Your task to perform on an android device: What's on my calendar tomorrow? Image 0: 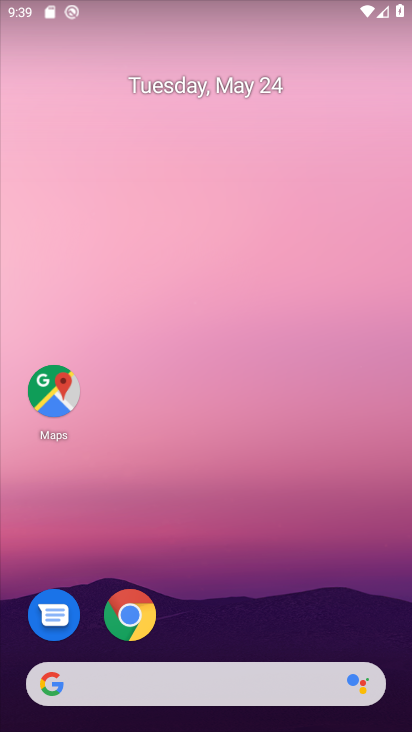
Step 0: drag from (372, 638) to (361, 253)
Your task to perform on an android device: What's on my calendar tomorrow? Image 1: 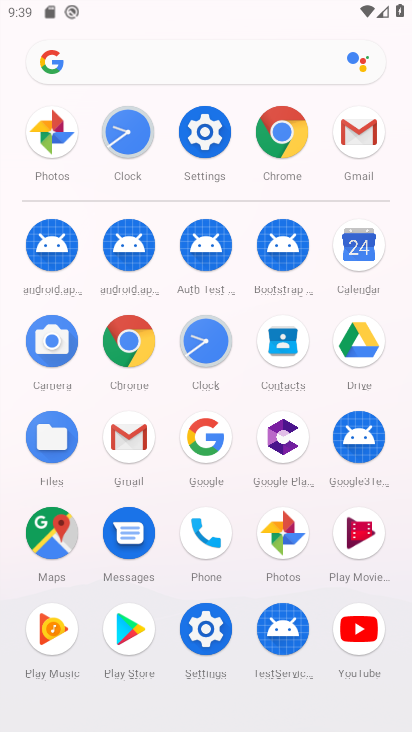
Step 1: click (371, 260)
Your task to perform on an android device: What's on my calendar tomorrow? Image 2: 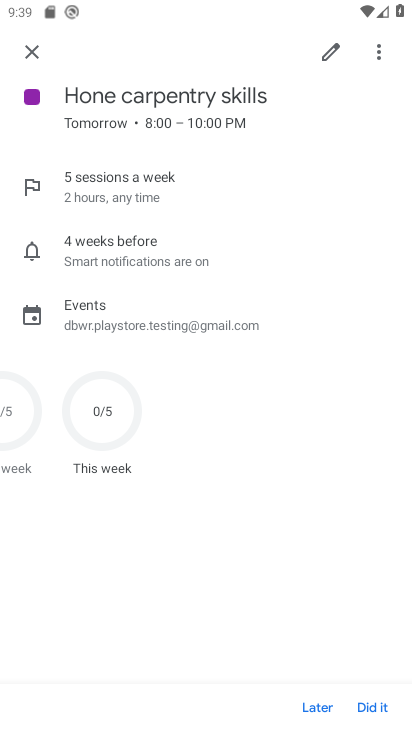
Step 2: task complete